Your task to perform on an android device: toggle javascript in the chrome app Image 0: 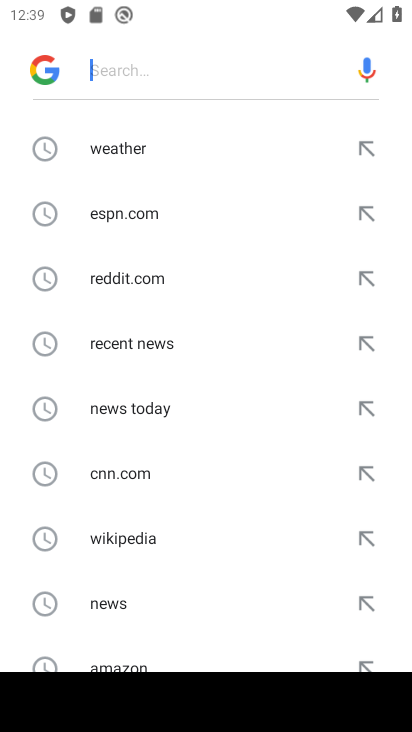
Step 0: press home button
Your task to perform on an android device: toggle javascript in the chrome app Image 1: 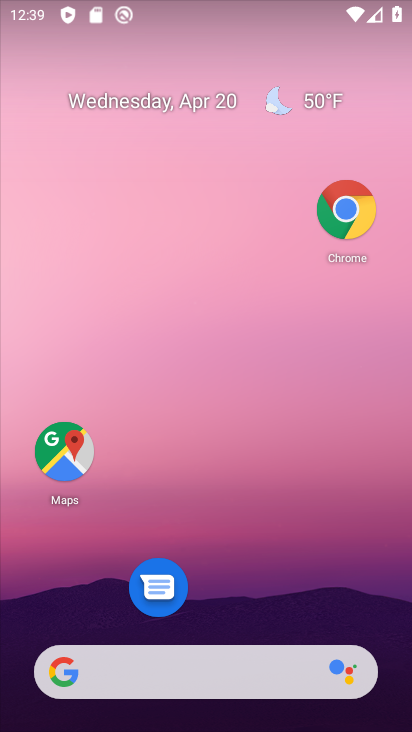
Step 1: click (311, 194)
Your task to perform on an android device: toggle javascript in the chrome app Image 2: 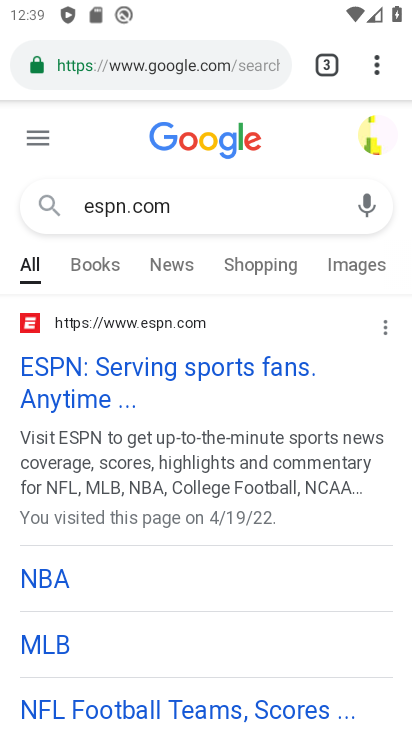
Step 2: click (377, 53)
Your task to perform on an android device: toggle javascript in the chrome app Image 3: 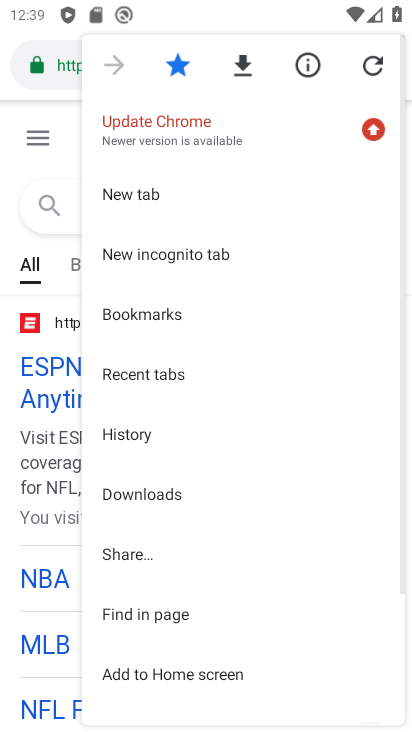
Step 3: drag from (157, 584) to (186, 302)
Your task to perform on an android device: toggle javascript in the chrome app Image 4: 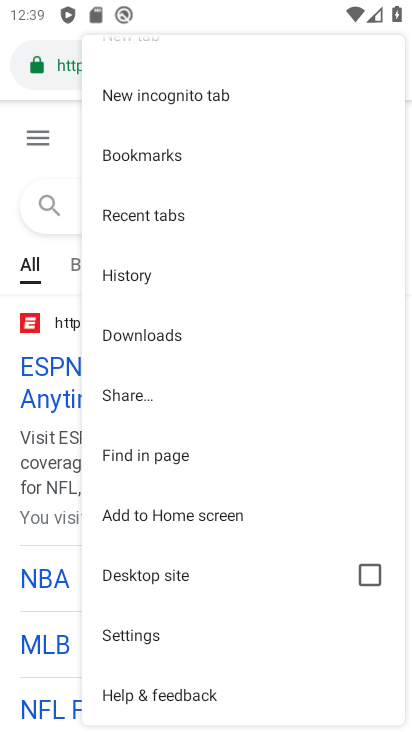
Step 4: click (128, 649)
Your task to perform on an android device: toggle javascript in the chrome app Image 5: 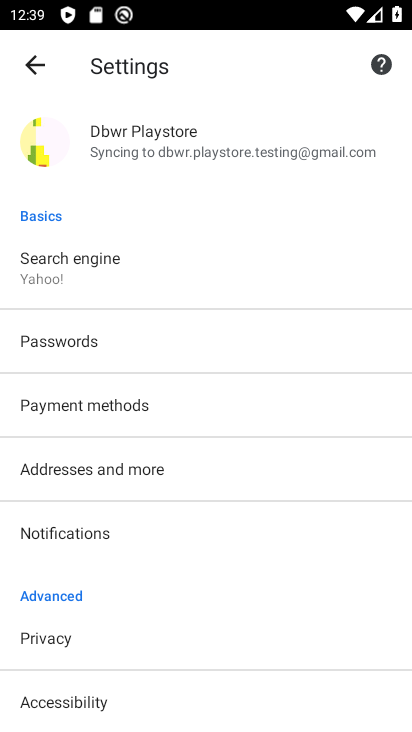
Step 5: drag from (86, 589) to (157, 260)
Your task to perform on an android device: toggle javascript in the chrome app Image 6: 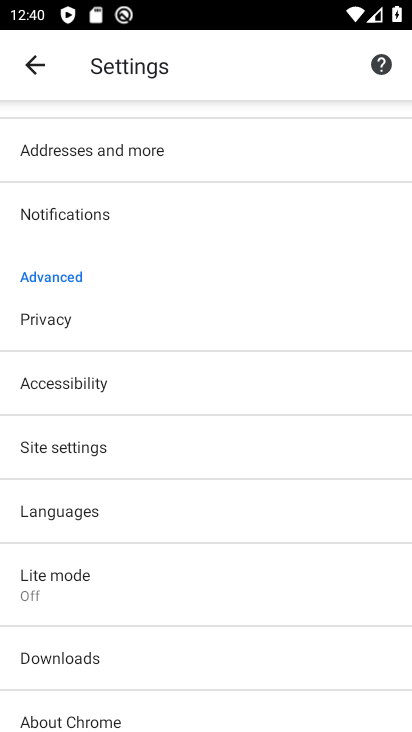
Step 6: click (95, 451)
Your task to perform on an android device: toggle javascript in the chrome app Image 7: 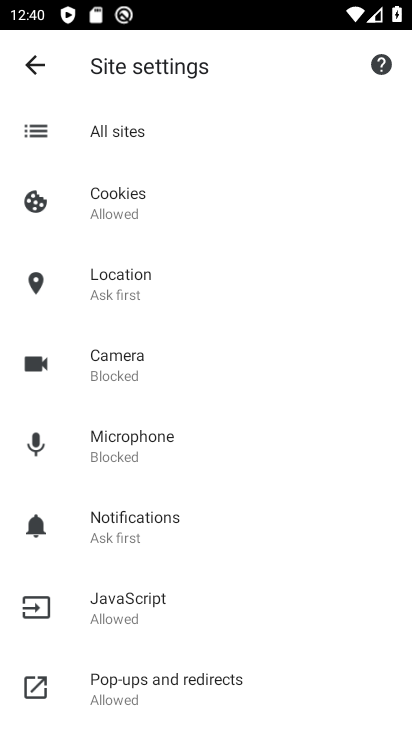
Step 7: click (105, 620)
Your task to perform on an android device: toggle javascript in the chrome app Image 8: 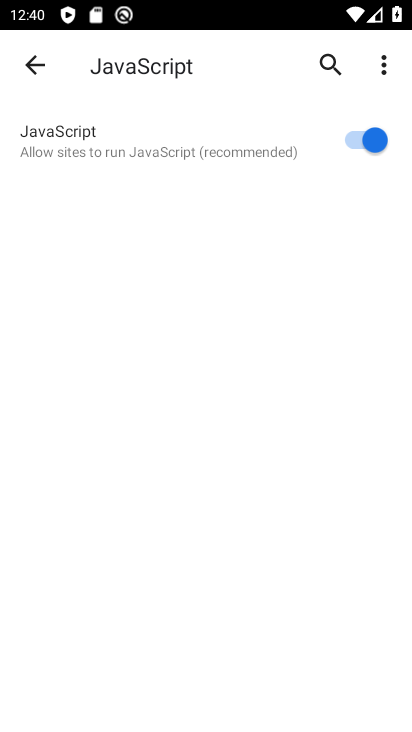
Step 8: click (340, 147)
Your task to perform on an android device: toggle javascript in the chrome app Image 9: 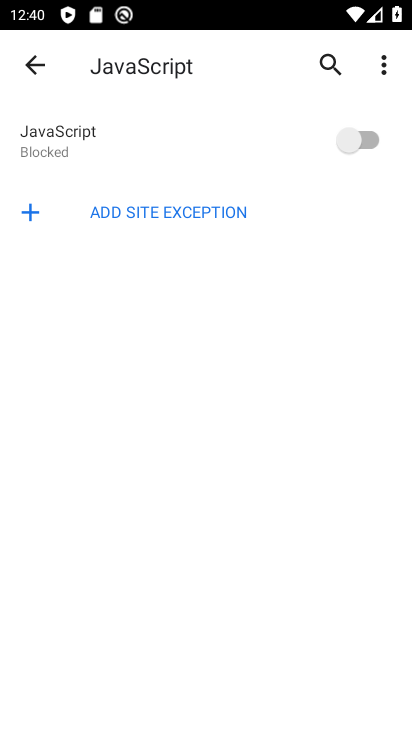
Step 9: task complete